Your task to perform on an android device: install app "Messenger Lite" Image 0: 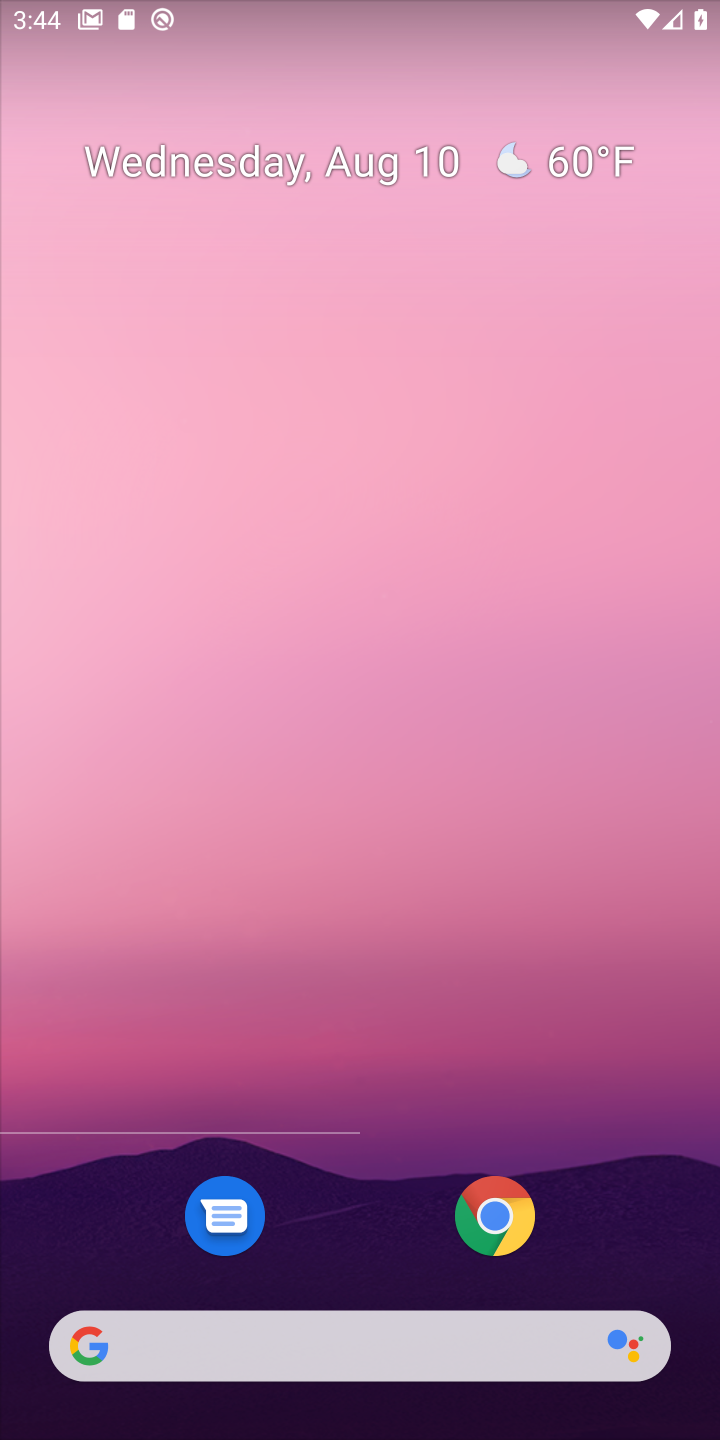
Step 0: press back button
Your task to perform on an android device: install app "Messenger Lite" Image 1: 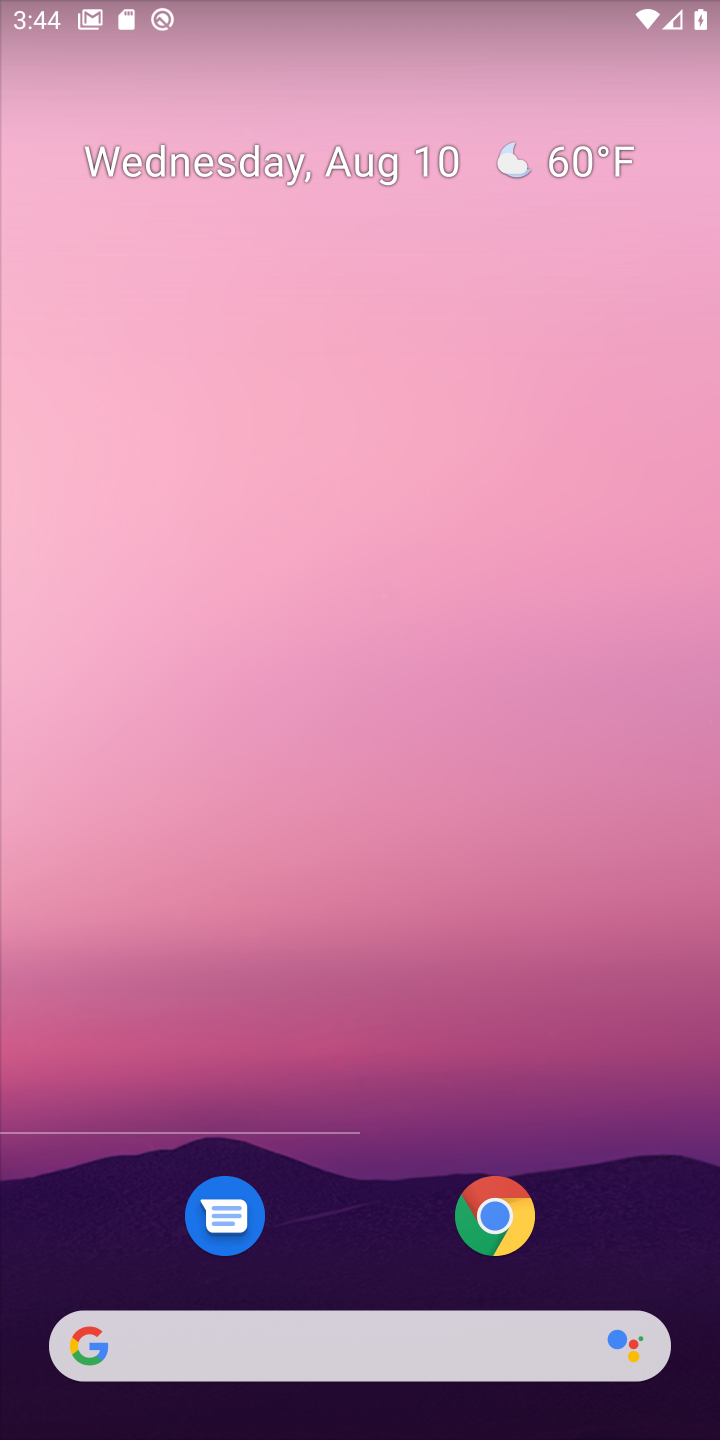
Step 1: drag from (481, 1033) to (539, 8)
Your task to perform on an android device: install app "Messenger Lite" Image 2: 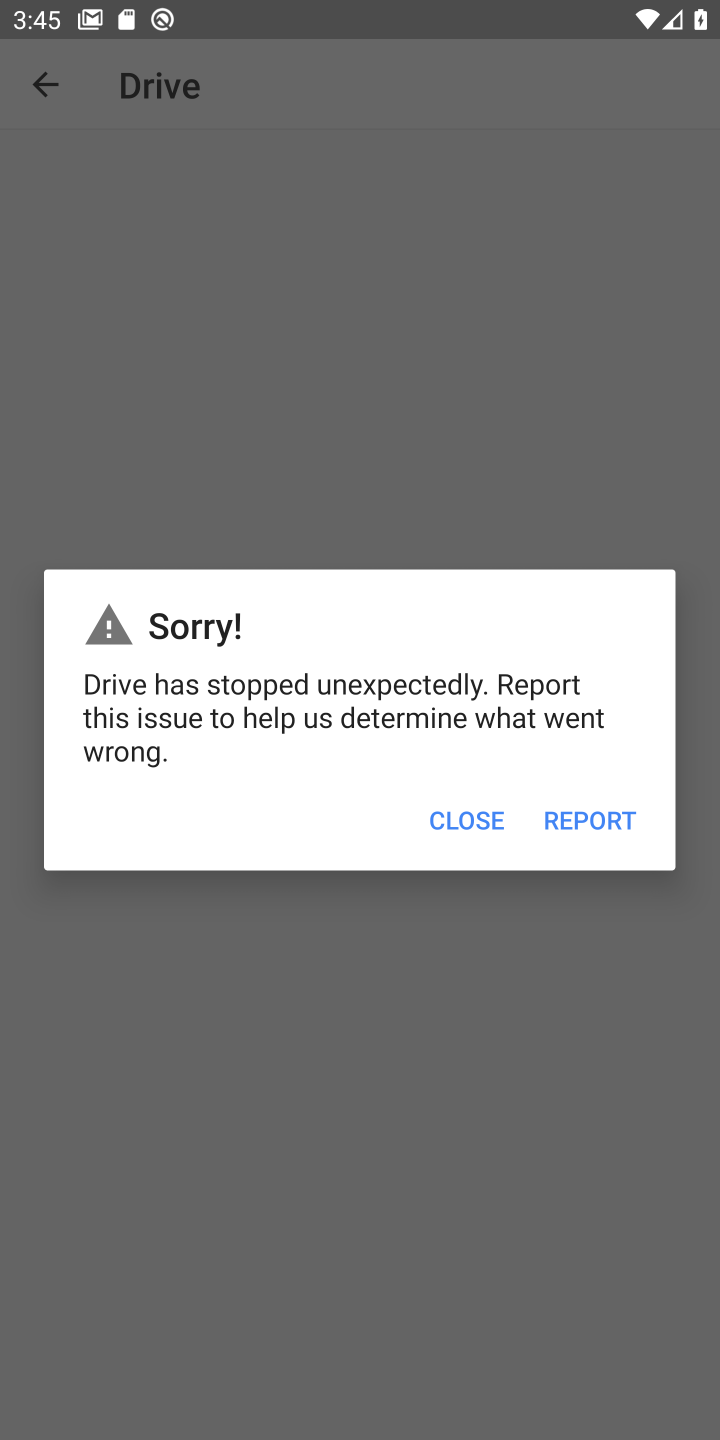
Step 2: press home button
Your task to perform on an android device: install app "Messenger Lite" Image 3: 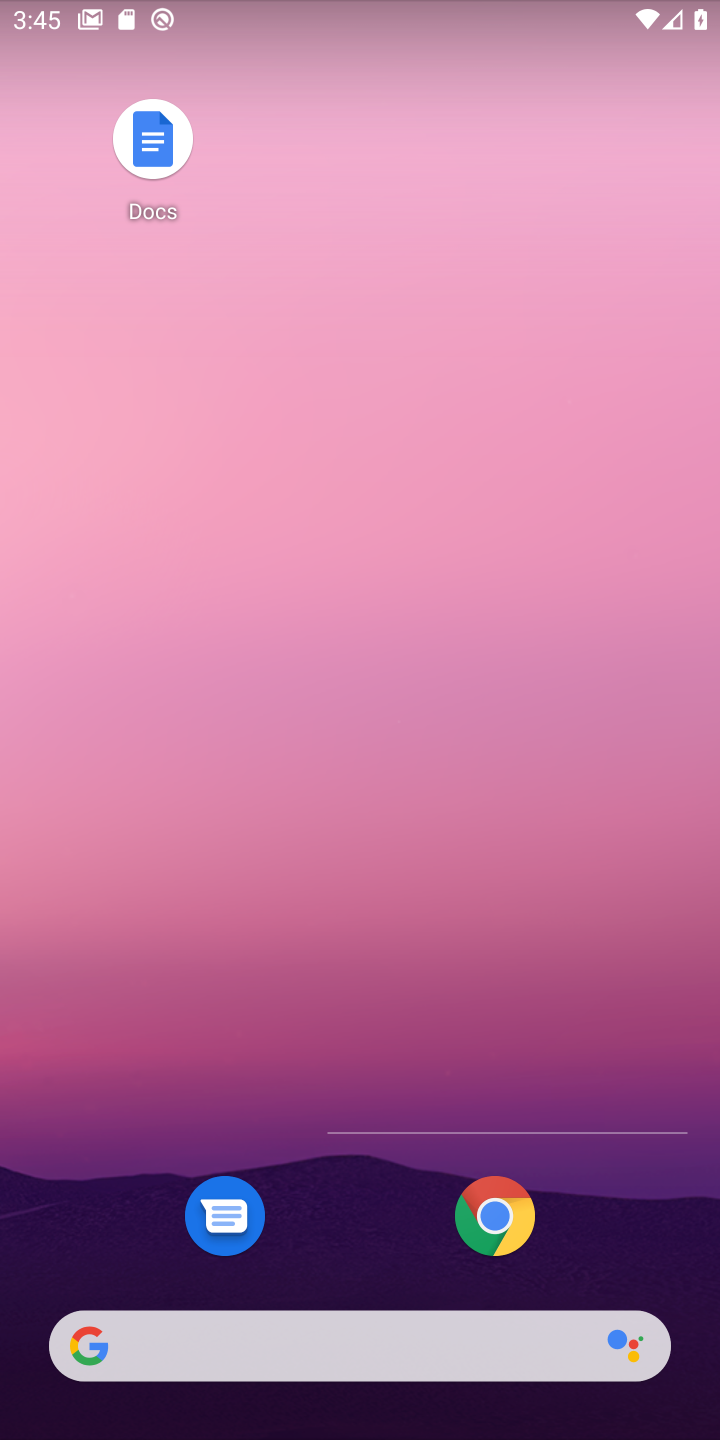
Step 3: drag from (414, 1308) to (459, 7)
Your task to perform on an android device: install app "Messenger Lite" Image 4: 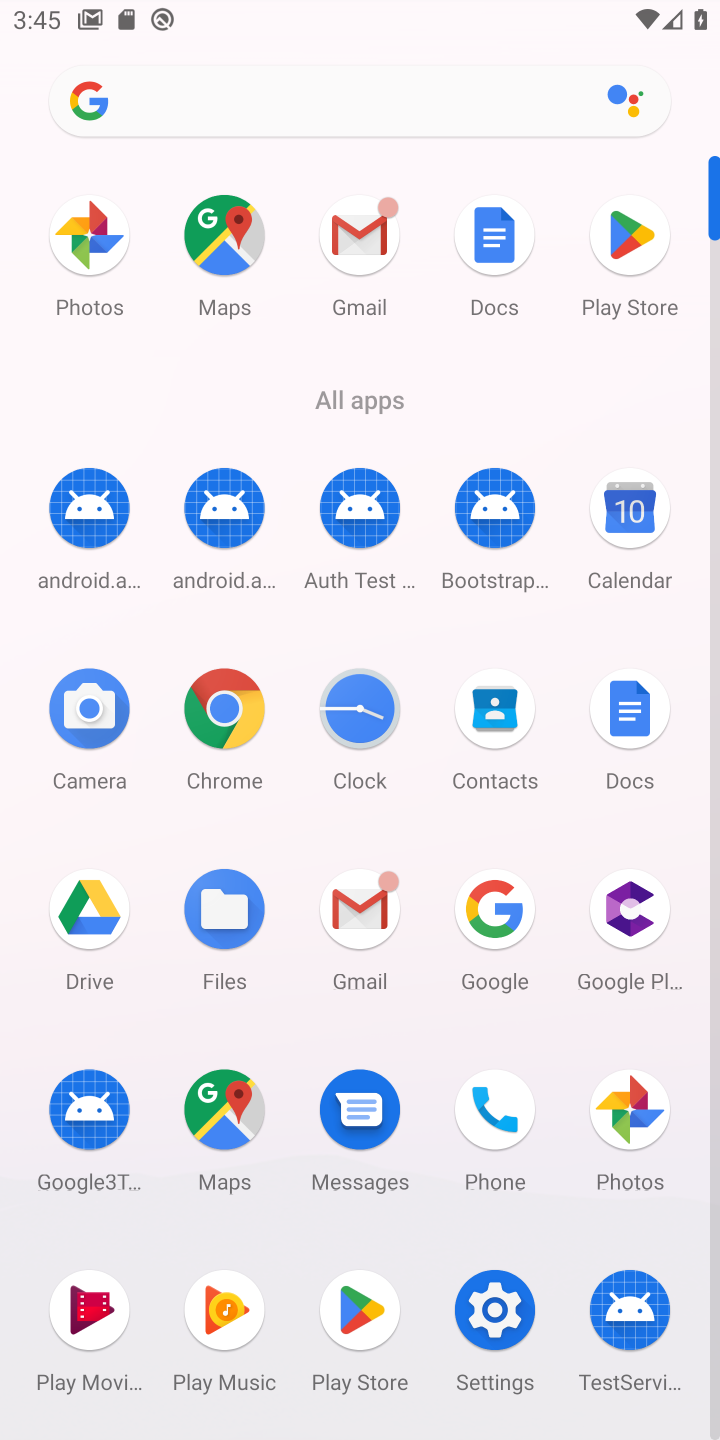
Step 4: click (373, 1295)
Your task to perform on an android device: install app "Messenger Lite" Image 5: 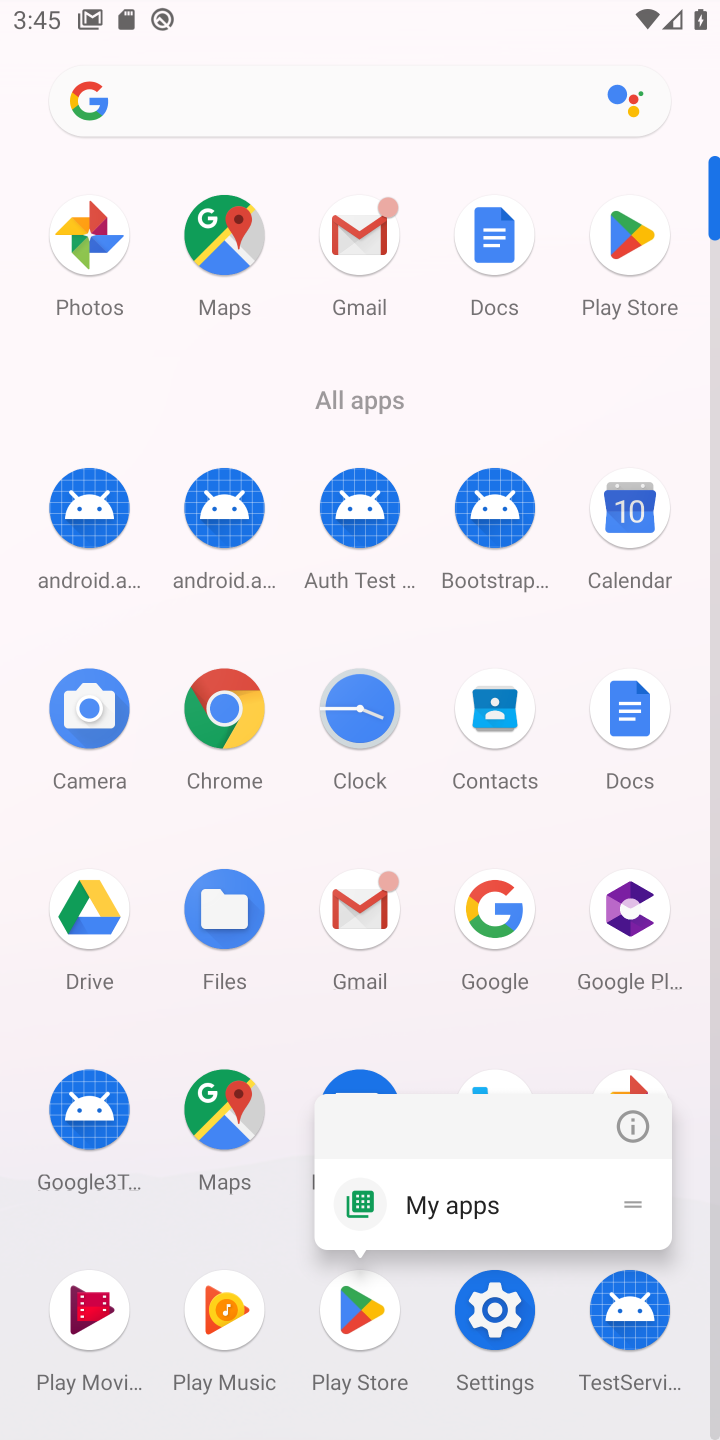
Step 5: click (357, 1333)
Your task to perform on an android device: install app "Messenger Lite" Image 6: 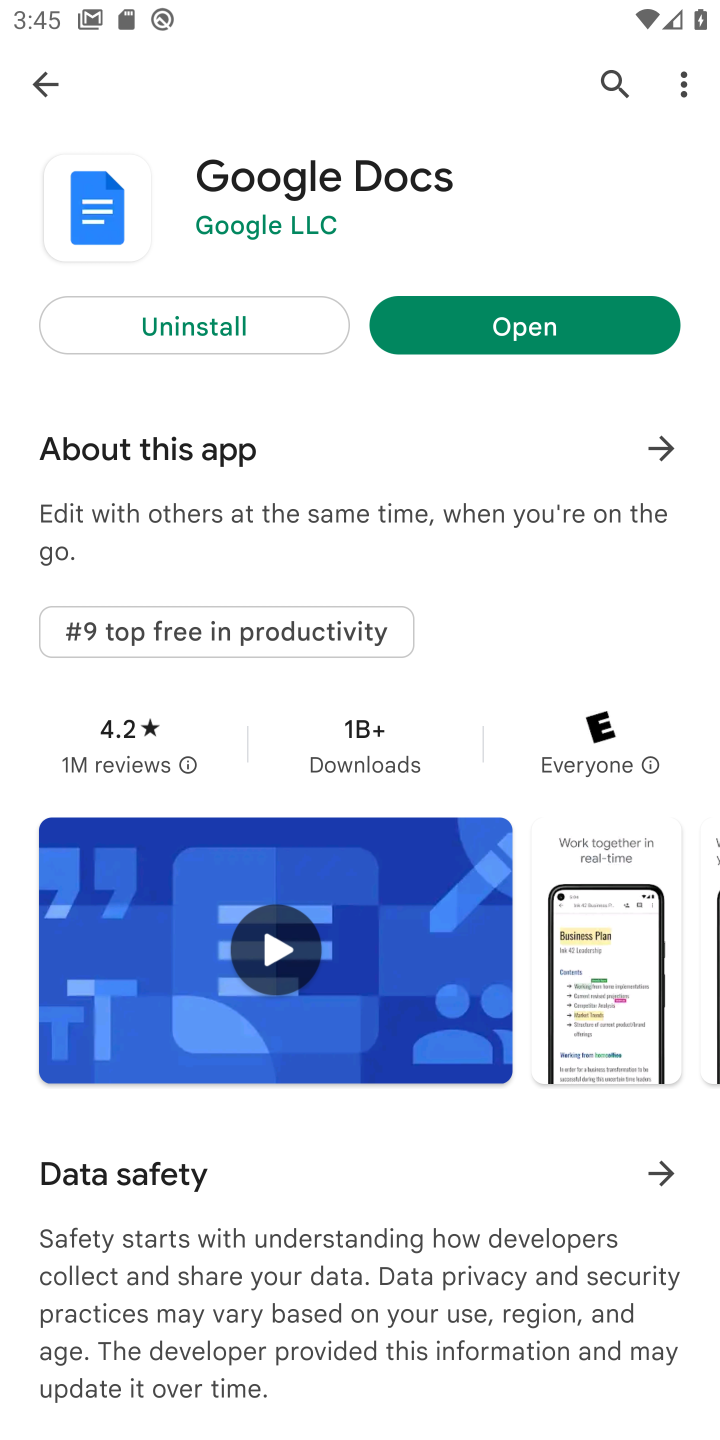
Step 6: click (40, 86)
Your task to perform on an android device: install app "Messenger Lite" Image 7: 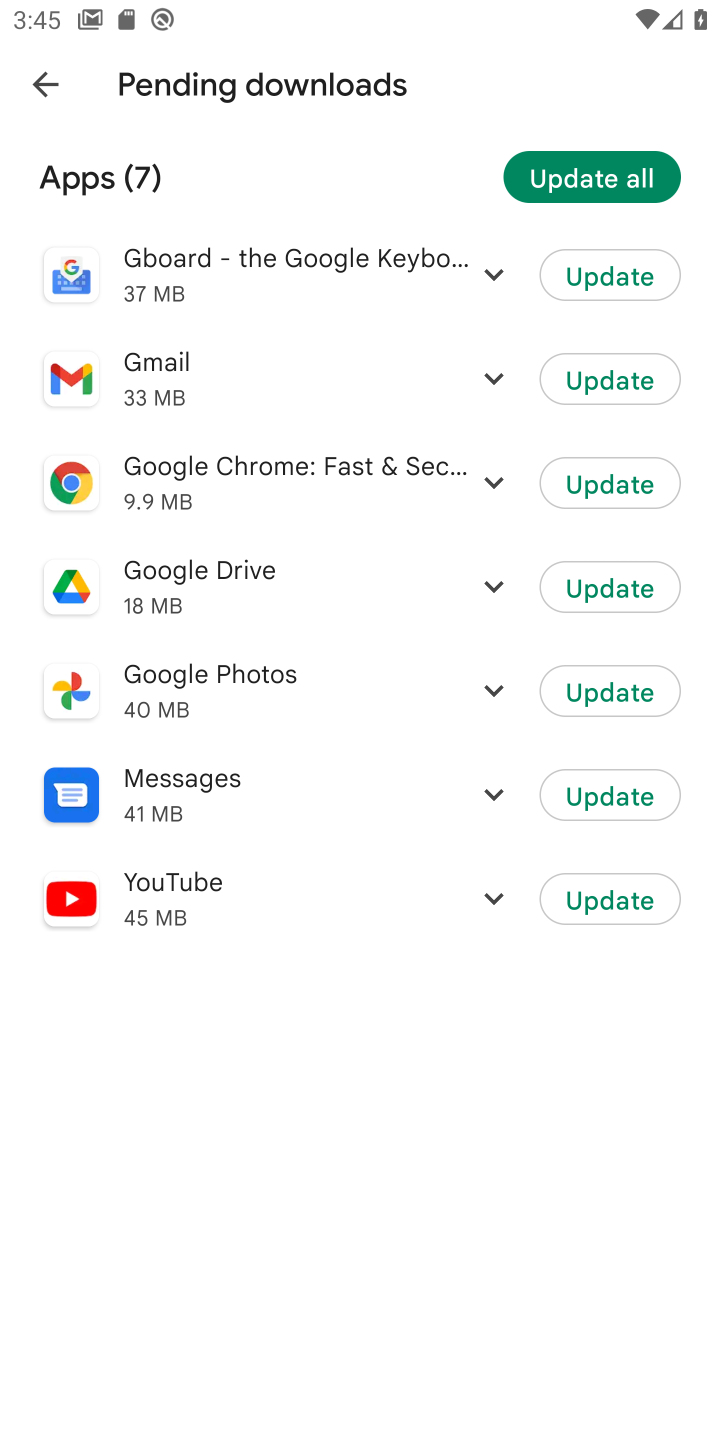
Step 7: click (56, 83)
Your task to perform on an android device: install app "Messenger Lite" Image 8: 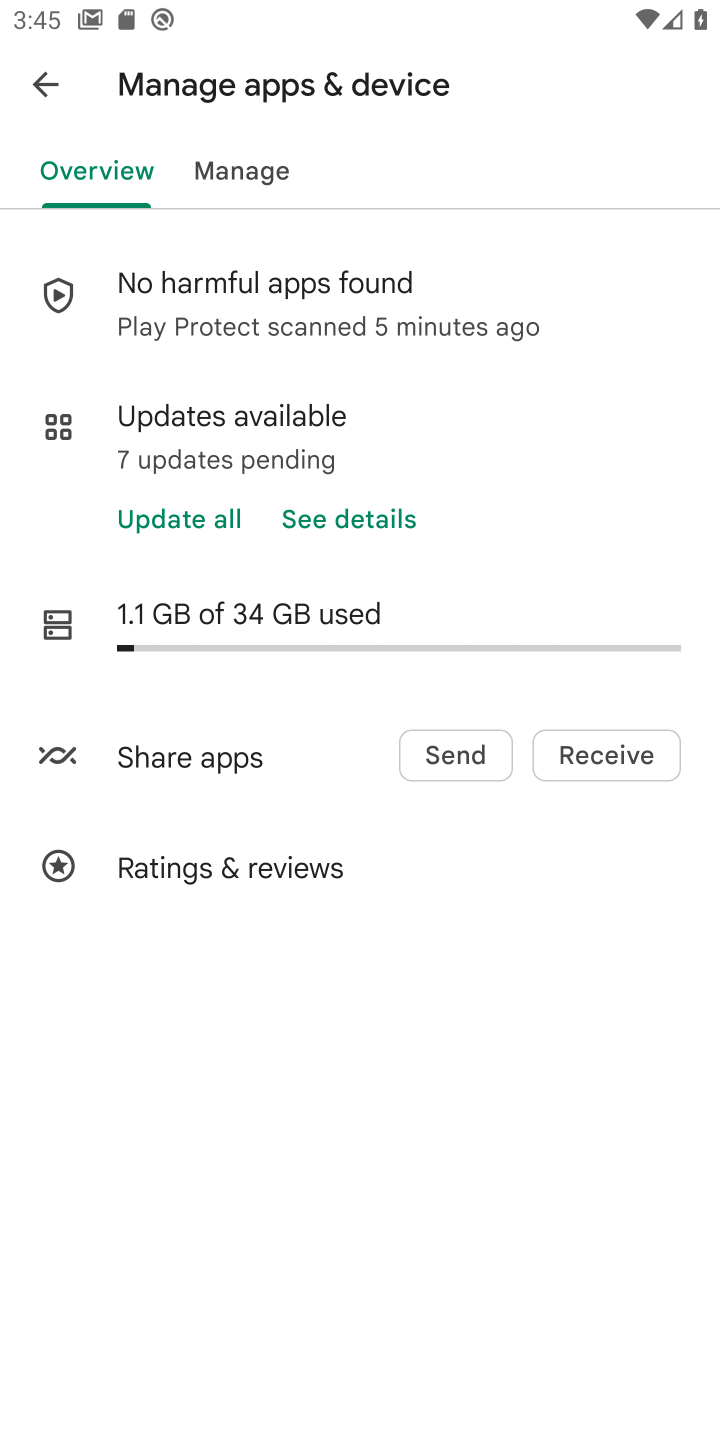
Step 8: click (56, 83)
Your task to perform on an android device: install app "Messenger Lite" Image 9: 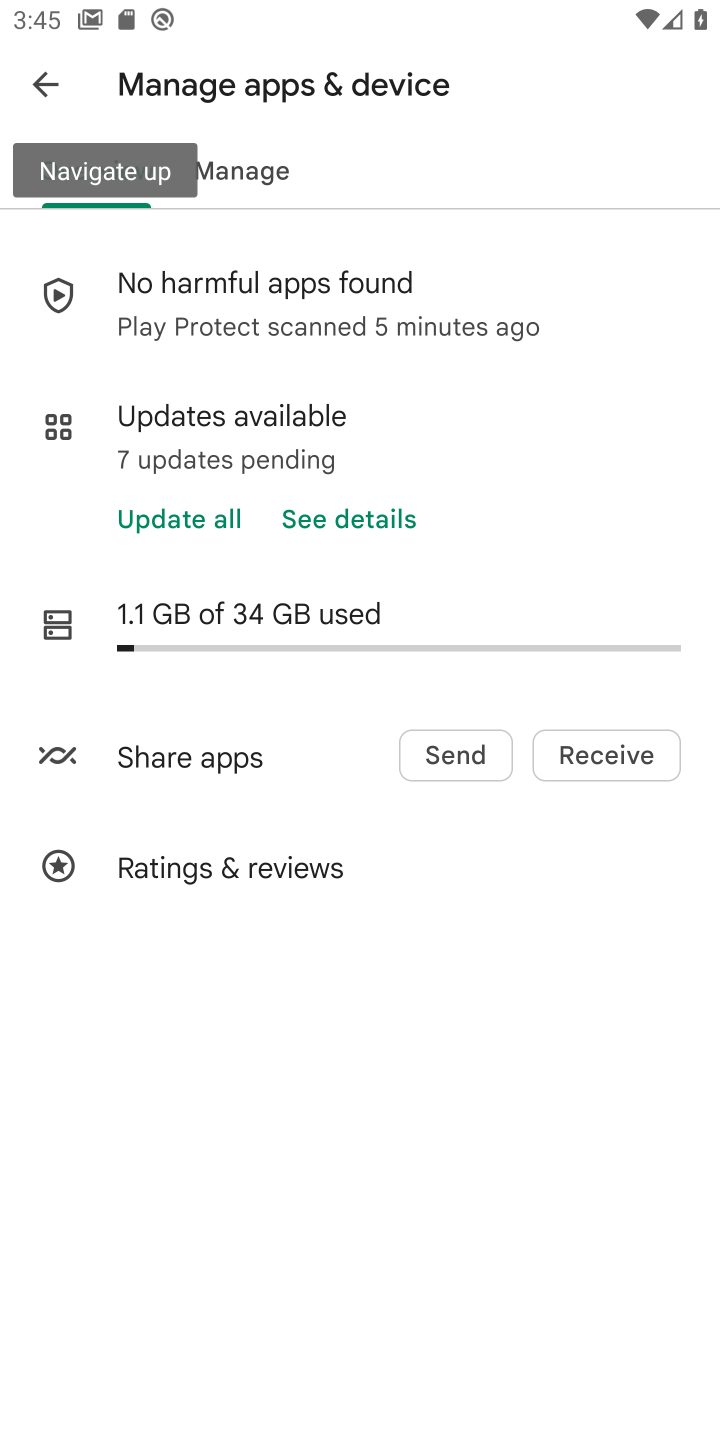
Step 9: click (56, 83)
Your task to perform on an android device: install app "Messenger Lite" Image 10: 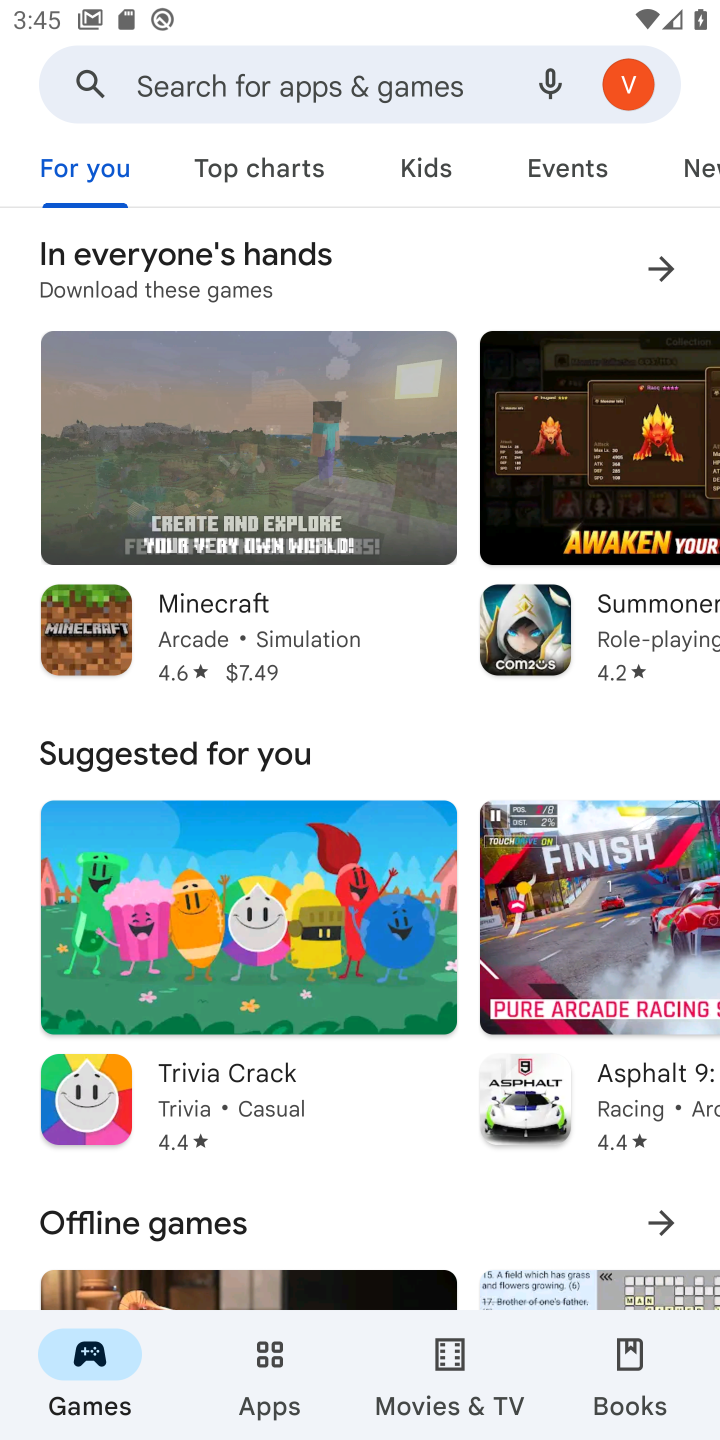
Step 10: click (277, 99)
Your task to perform on an android device: install app "Messenger Lite" Image 11: 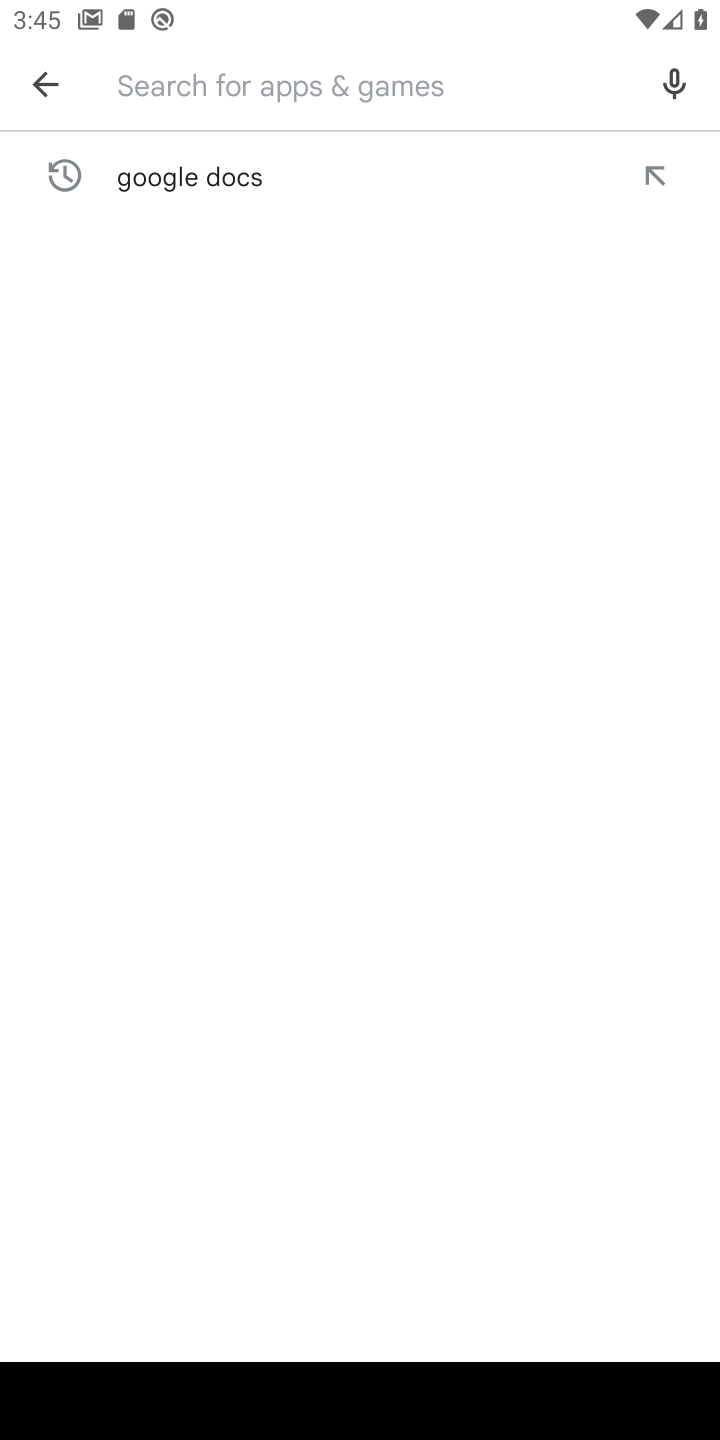
Step 11: type "Messenger Lite"
Your task to perform on an android device: install app "Messenger Lite" Image 12: 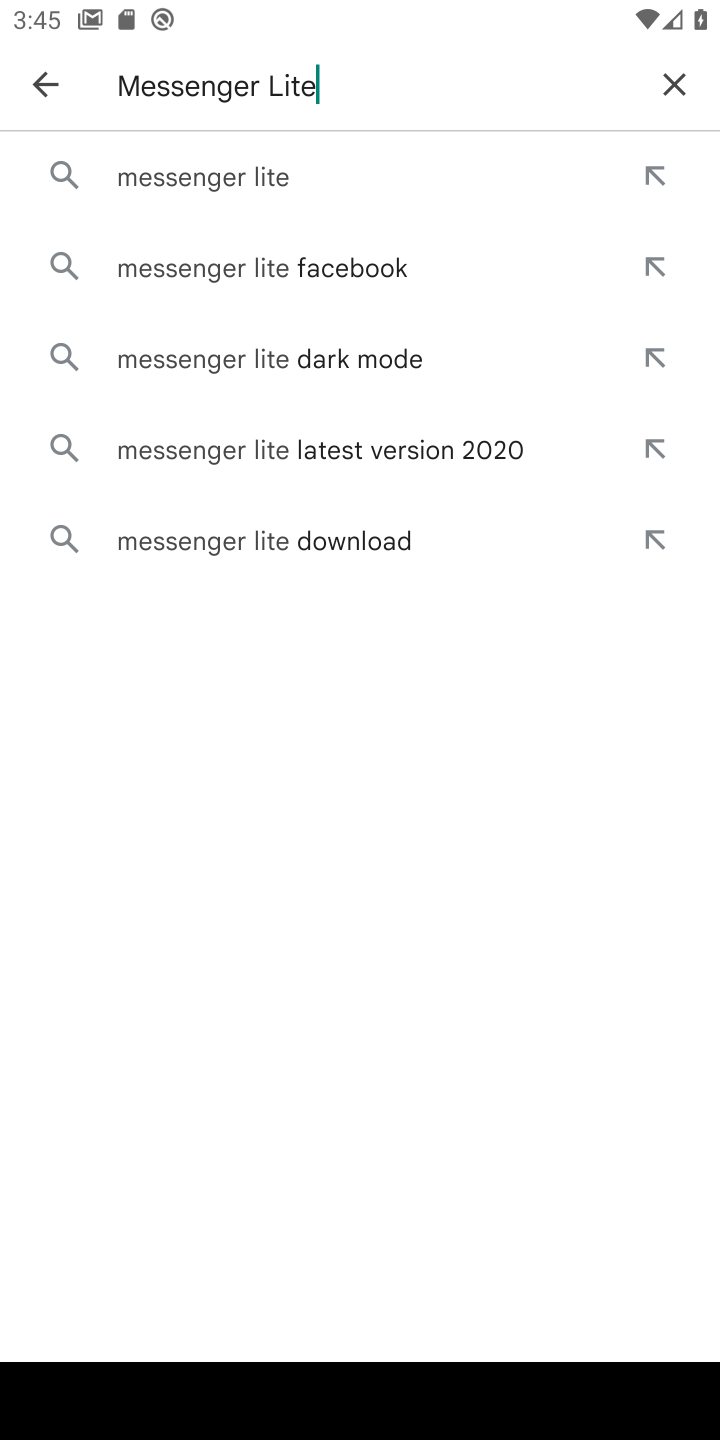
Step 12: click (263, 171)
Your task to perform on an android device: install app "Messenger Lite" Image 13: 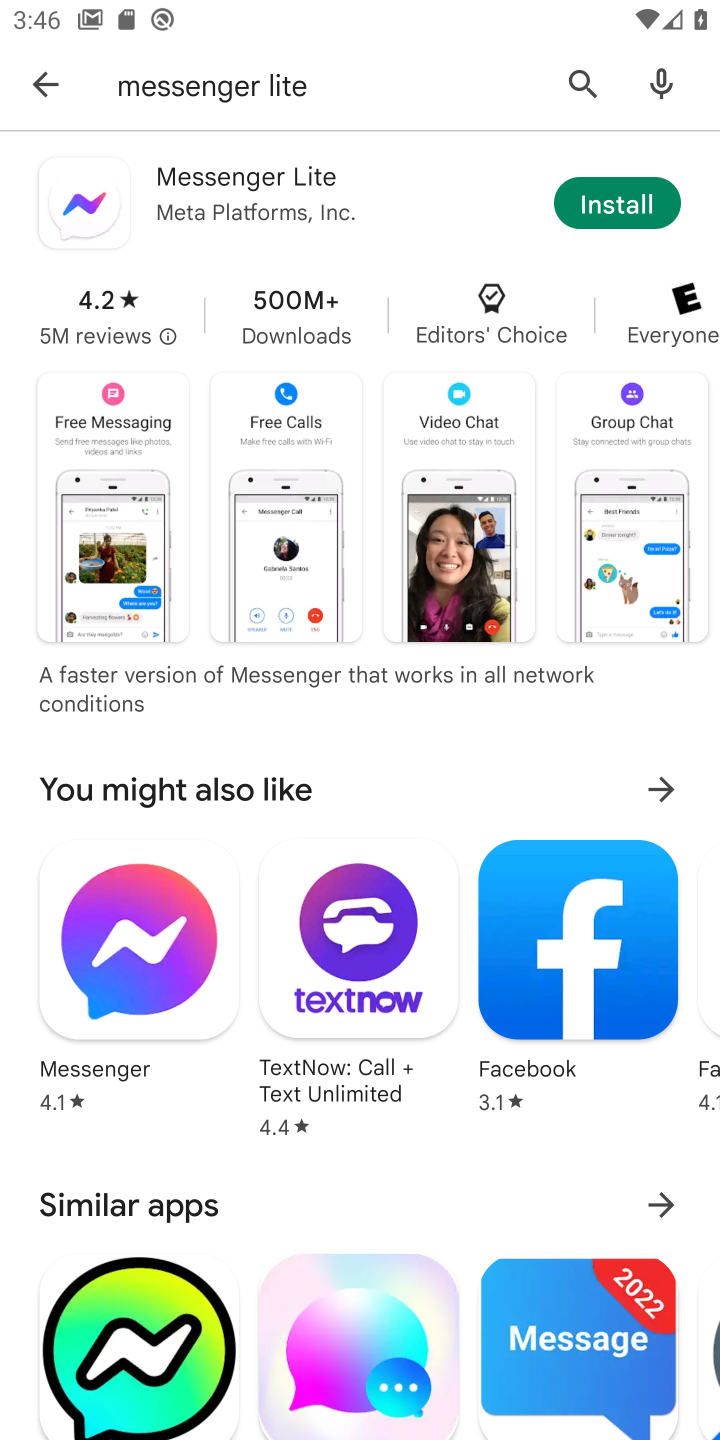
Step 13: click (578, 208)
Your task to perform on an android device: install app "Messenger Lite" Image 14: 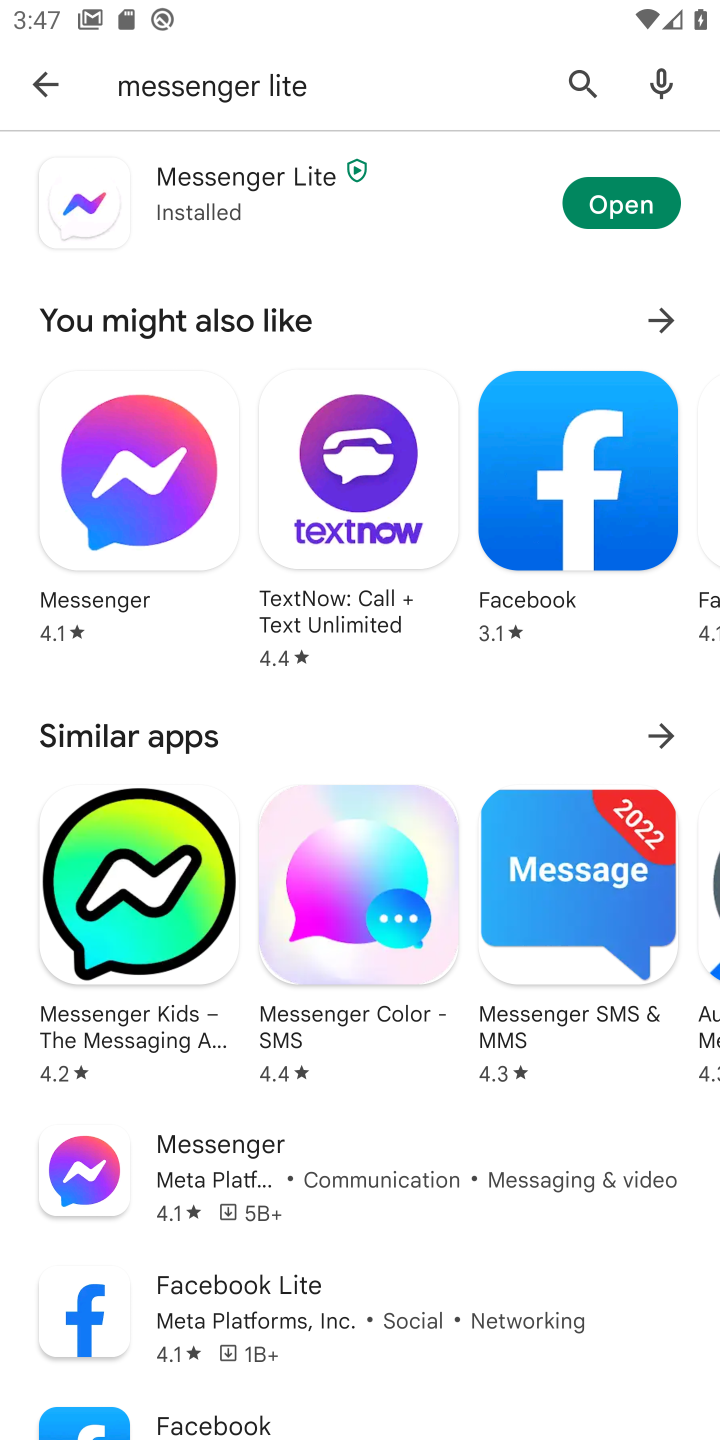
Step 14: click (605, 206)
Your task to perform on an android device: install app "Messenger Lite" Image 15: 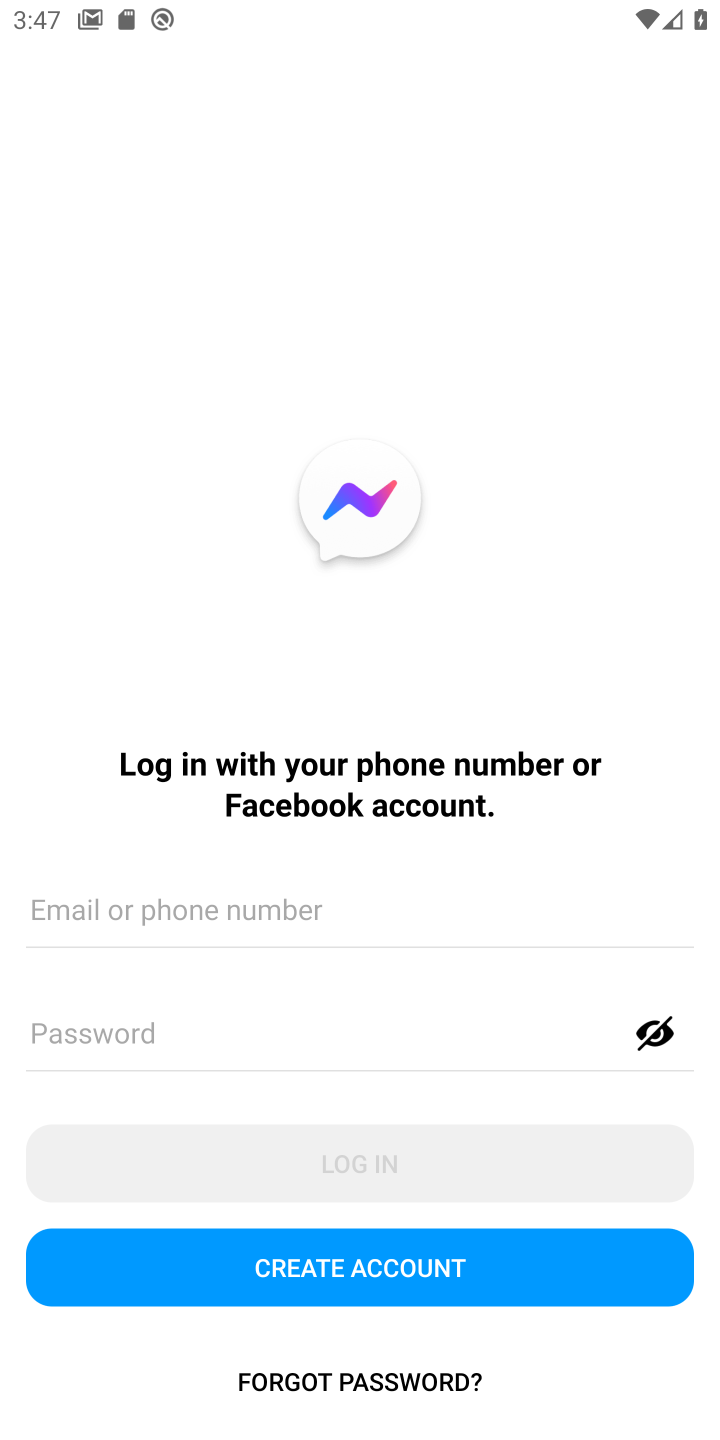
Step 15: task complete